Your task to perform on an android device: Go to ESPN.com Image 0: 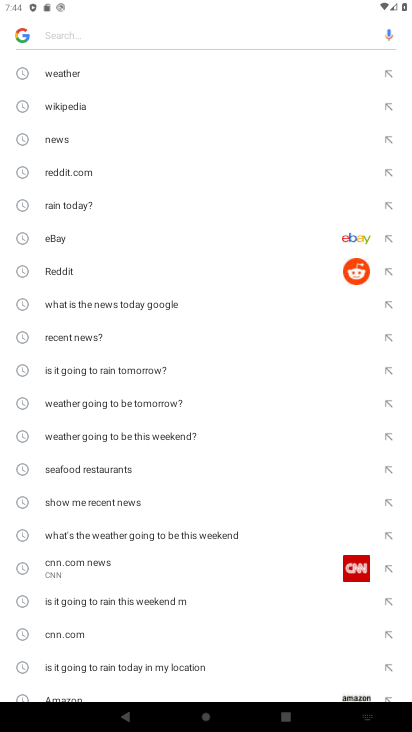
Step 0: press home button
Your task to perform on an android device: Go to ESPN.com Image 1: 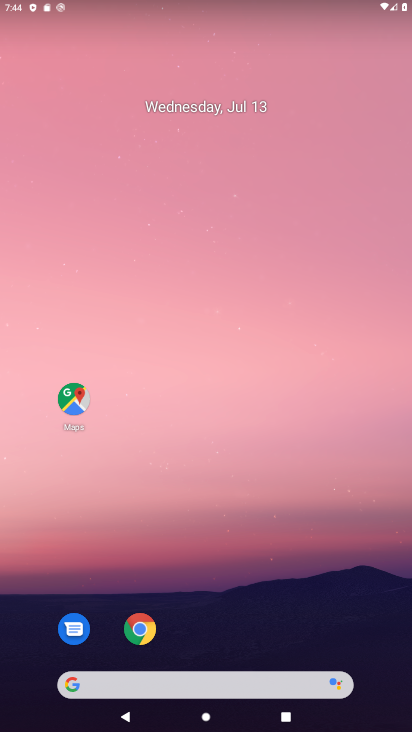
Step 1: click (186, 685)
Your task to perform on an android device: Go to ESPN.com Image 2: 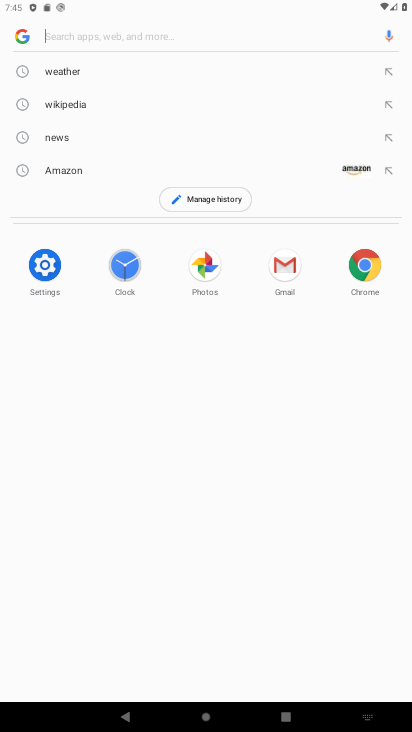
Step 2: type "ESPN.com"
Your task to perform on an android device: Go to ESPN.com Image 3: 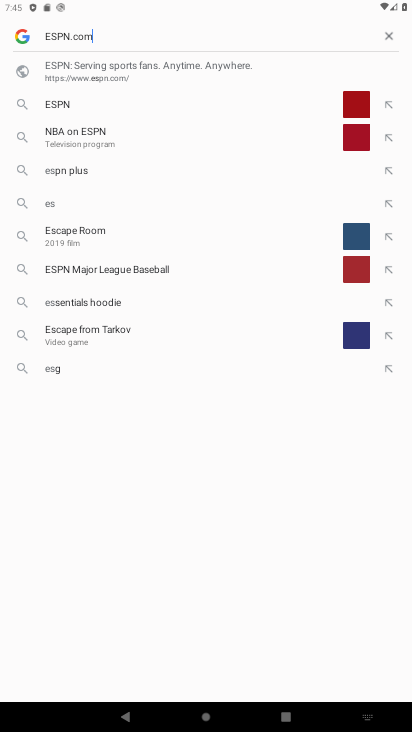
Step 3: type ""
Your task to perform on an android device: Go to ESPN.com Image 4: 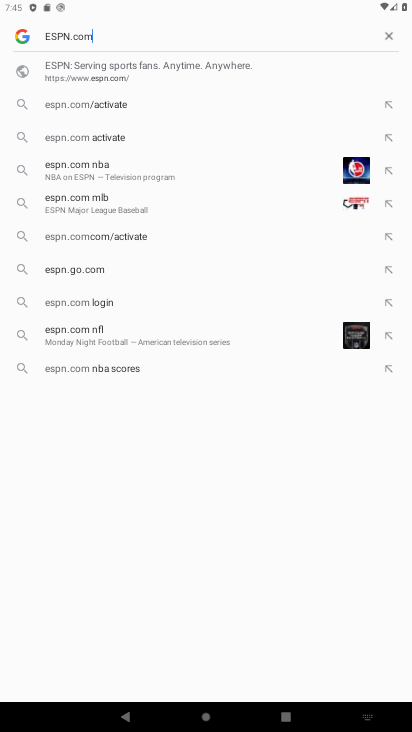
Step 4: click (126, 75)
Your task to perform on an android device: Go to ESPN.com Image 5: 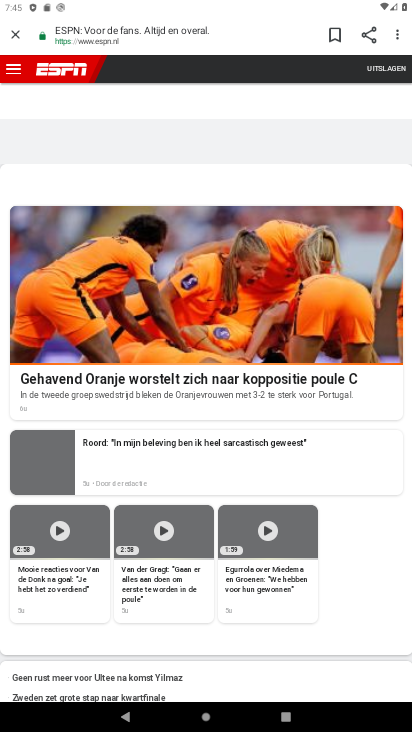
Step 5: task complete